Your task to perform on an android device: open device folders in google photos Image 0: 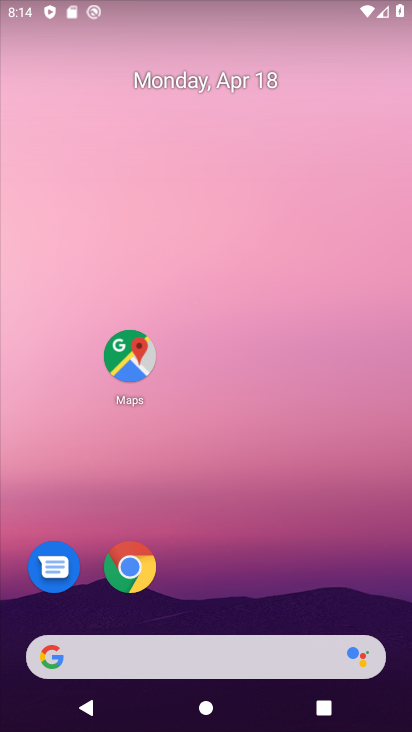
Step 0: click (264, 243)
Your task to perform on an android device: open device folders in google photos Image 1: 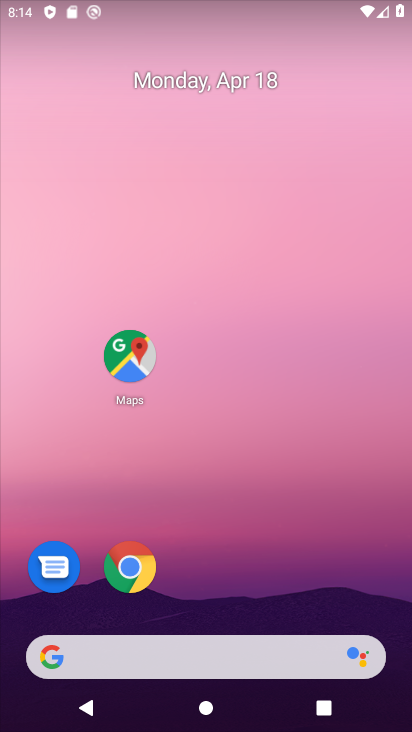
Step 1: drag from (246, 684) to (255, 152)
Your task to perform on an android device: open device folders in google photos Image 2: 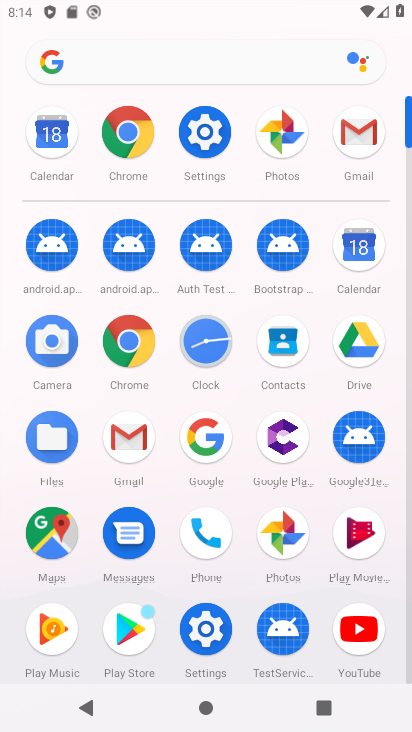
Step 2: click (297, 523)
Your task to perform on an android device: open device folders in google photos Image 3: 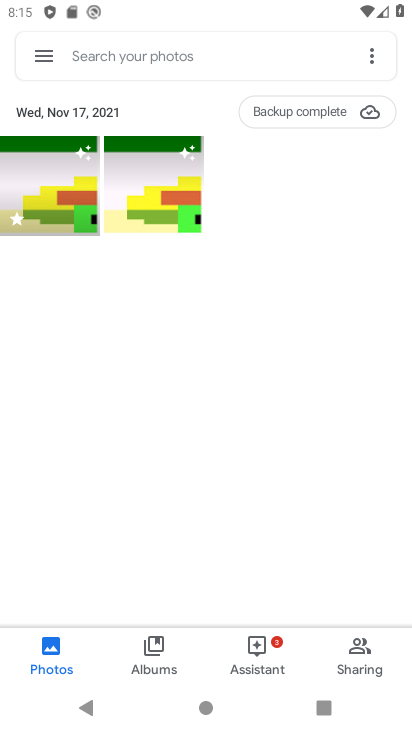
Step 3: click (48, 58)
Your task to perform on an android device: open device folders in google photos Image 4: 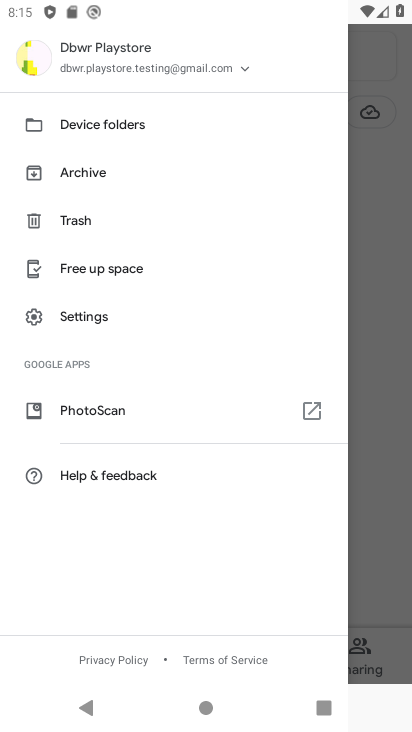
Step 4: click (88, 125)
Your task to perform on an android device: open device folders in google photos Image 5: 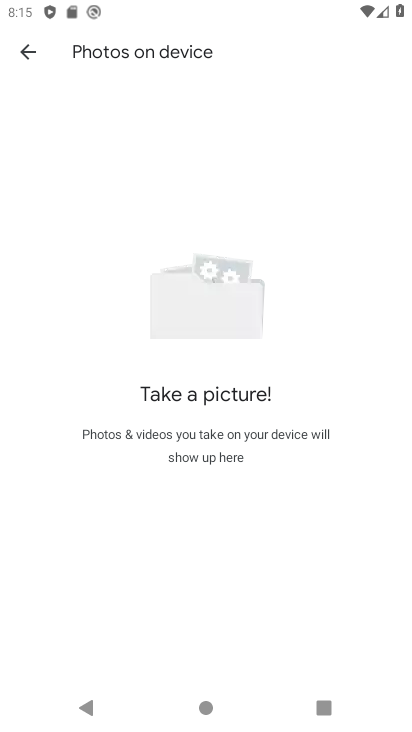
Step 5: task complete